Your task to perform on an android device: all mails in gmail Image 0: 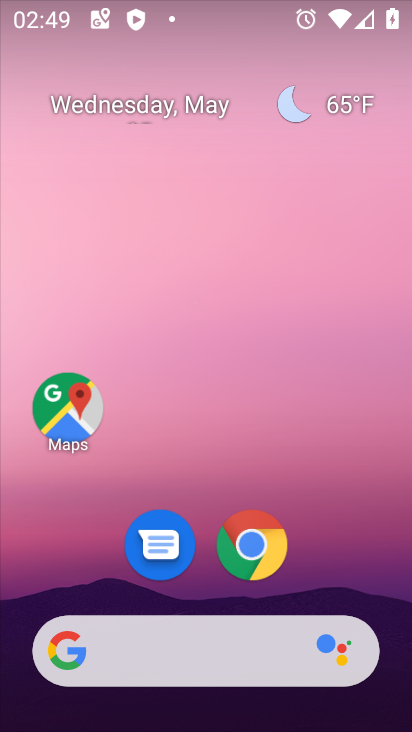
Step 0: drag from (320, 487) to (121, 46)
Your task to perform on an android device: all mails in gmail Image 1: 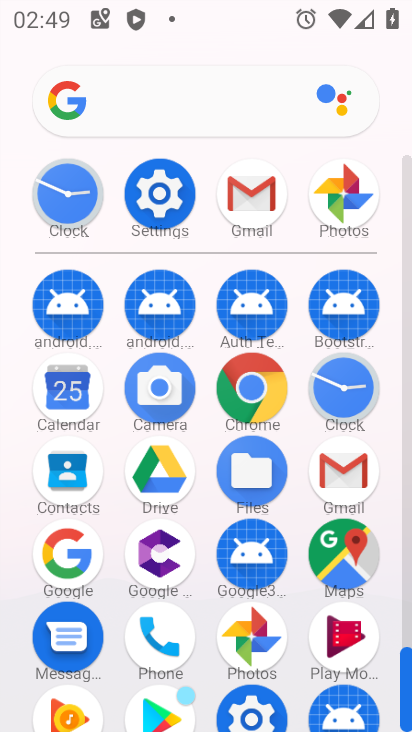
Step 1: click (349, 458)
Your task to perform on an android device: all mails in gmail Image 2: 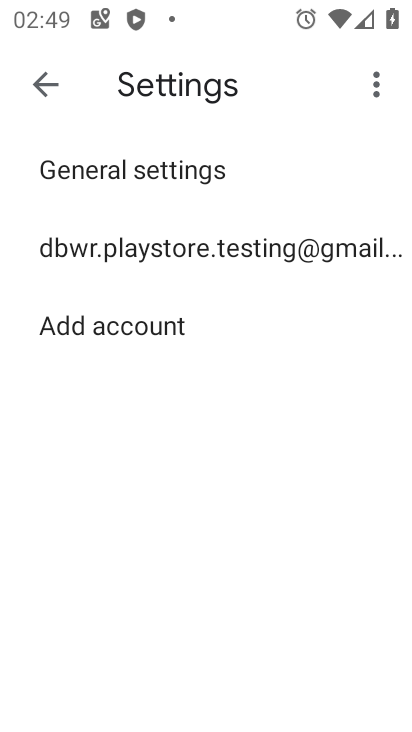
Step 2: click (45, 91)
Your task to perform on an android device: all mails in gmail Image 3: 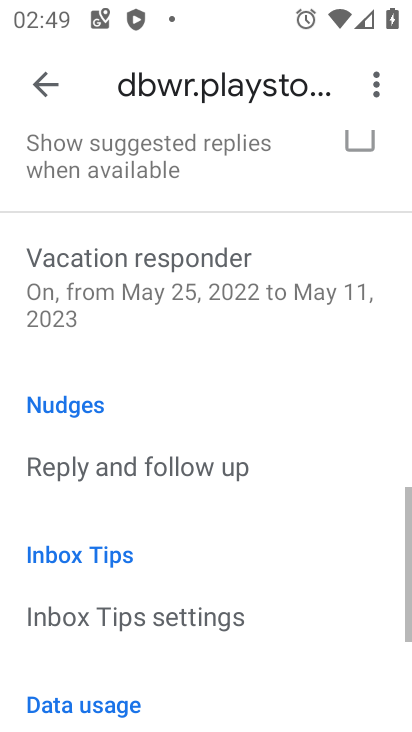
Step 3: drag from (222, 560) to (218, 212)
Your task to perform on an android device: all mails in gmail Image 4: 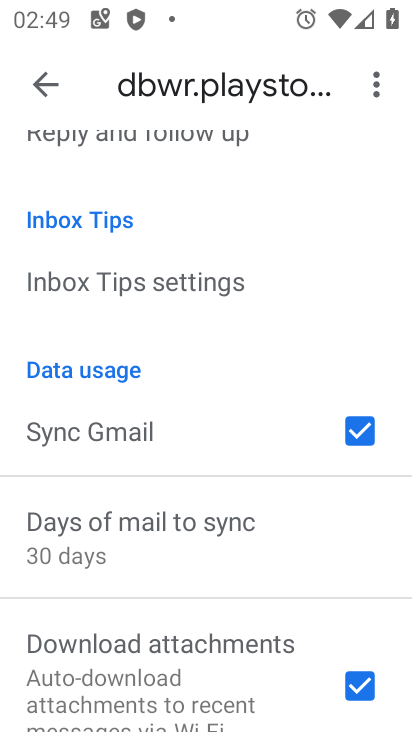
Step 4: click (49, 90)
Your task to perform on an android device: all mails in gmail Image 5: 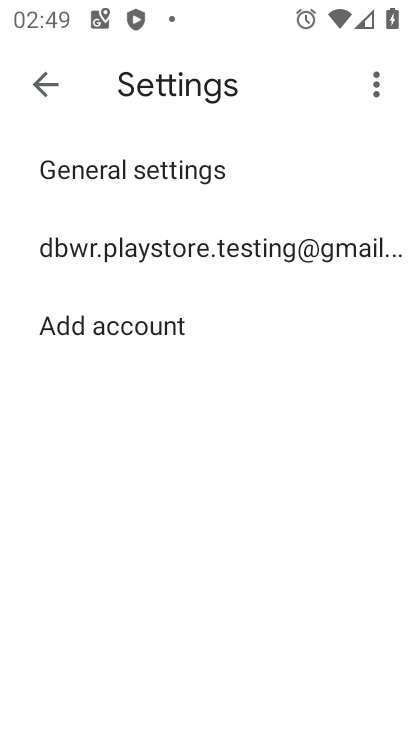
Step 5: click (49, 85)
Your task to perform on an android device: all mails in gmail Image 6: 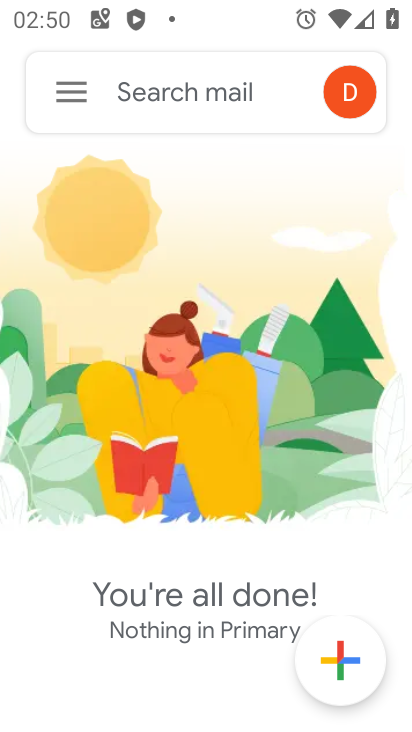
Step 6: task complete